Your task to perform on an android device: Toggle the flashlight Image 0: 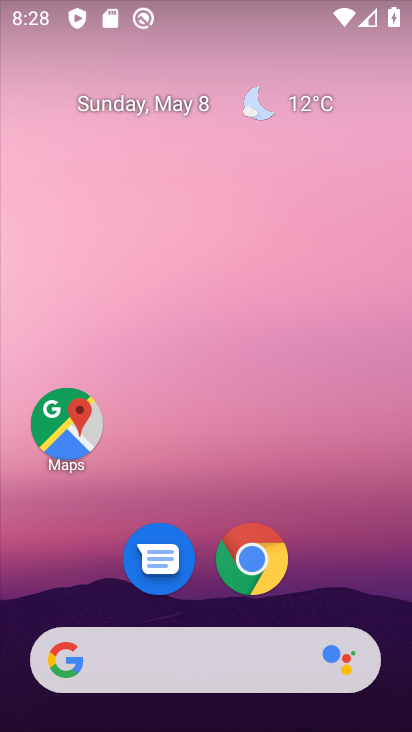
Step 0: drag from (206, 349) to (184, 13)
Your task to perform on an android device: Toggle the flashlight Image 1: 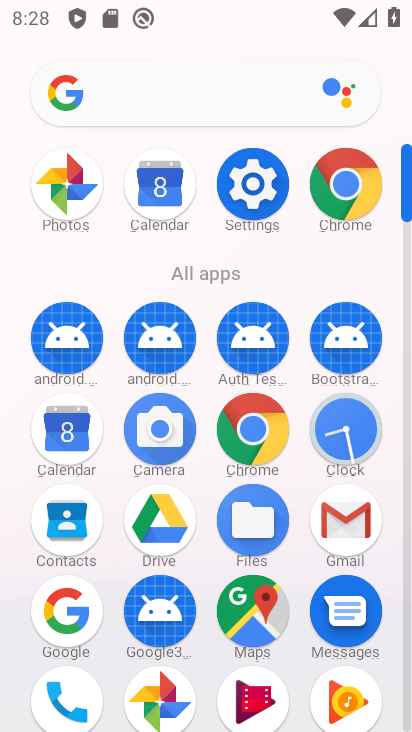
Step 1: click (254, 182)
Your task to perform on an android device: Toggle the flashlight Image 2: 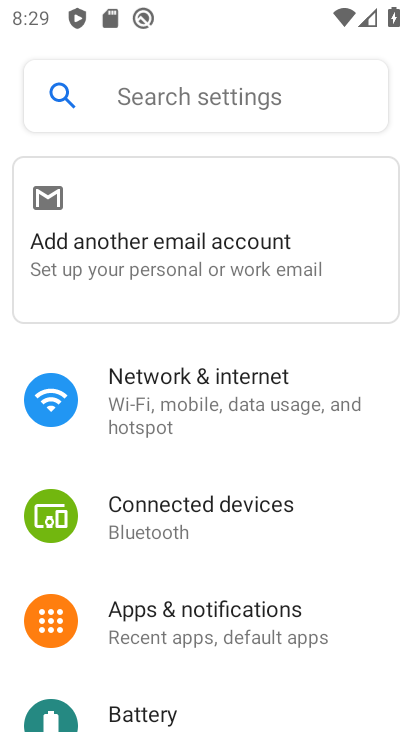
Step 2: click (219, 96)
Your task to perform on an android device: Toggle the flashlight Image 3: 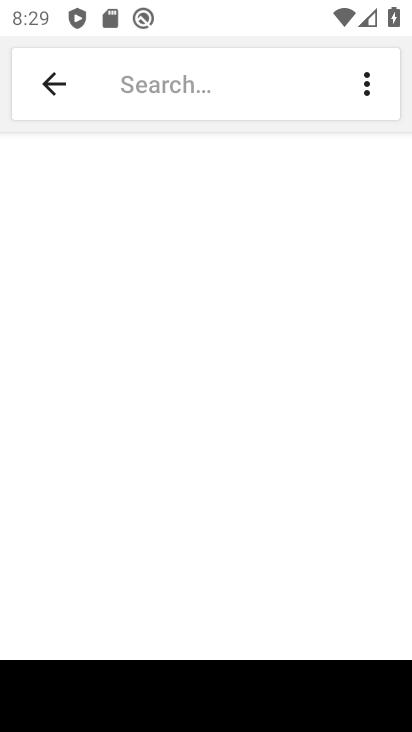
Step 3: type "flashlight"
Your task to perform on an android device: Toggle the flashlight Image 4: 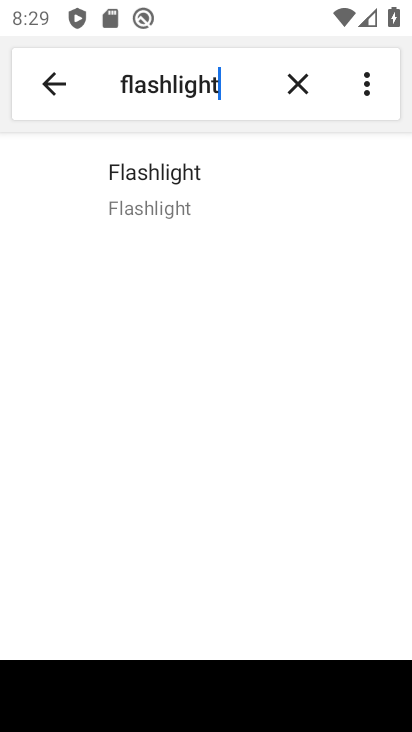
Step 4: task complete